Your task to perform on an android device: Check the weather Image 0: 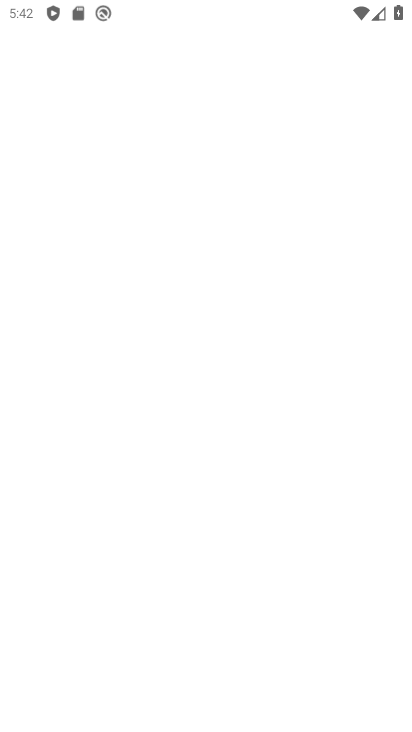
Step 0: drag from (281, 667) to (306, 152)
Your task to perform on an android device: Check the weather Image 1: 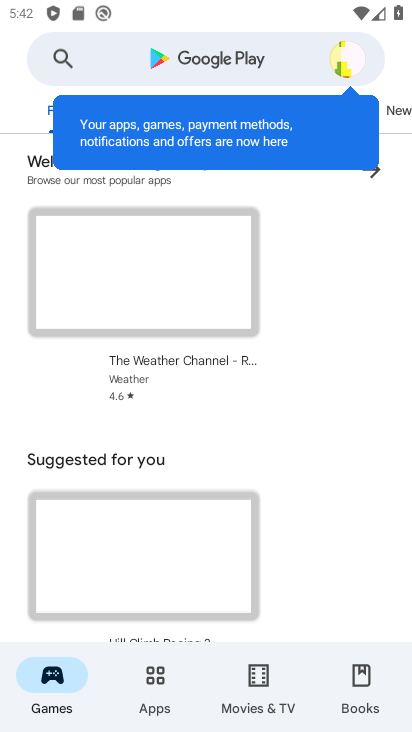
Step 1: press home button
Your task to perform on an android device: Check the weather Image 2: 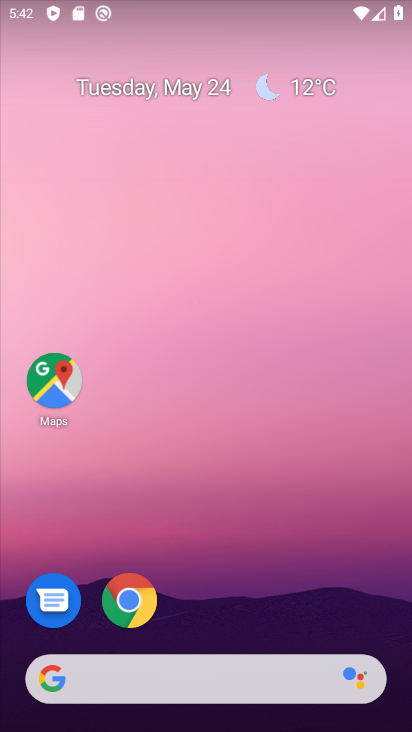
Step 2: drag from (11, 316) to (369, 354)
Your task to perform on an android device: Check the weather Image 3: 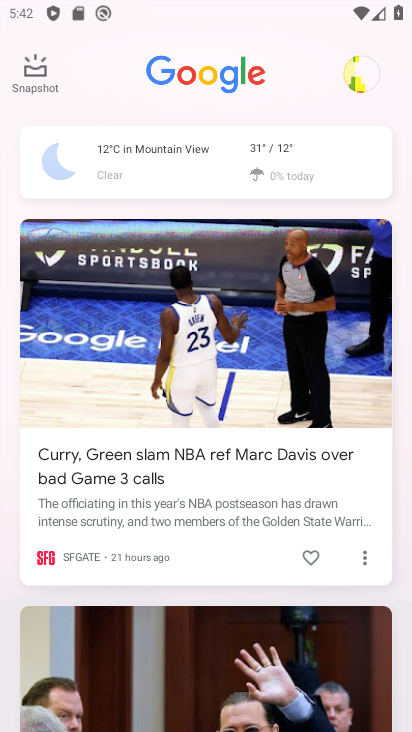
Step 3: click (210, 170)
Your task to perform on an android device: Check the weather Image 4: 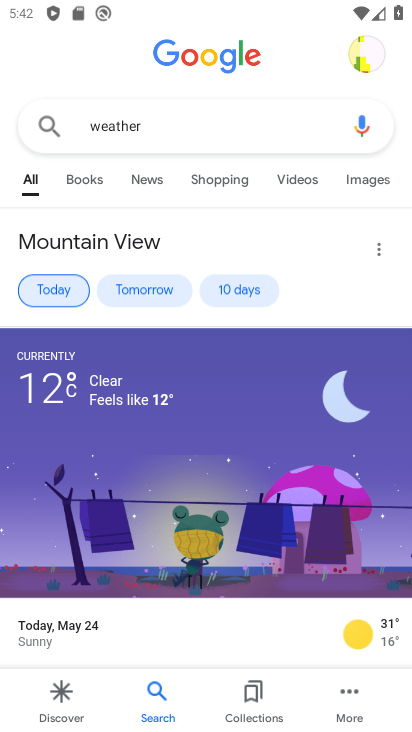
Step 4: task complete